Your task to perform on an android device: Open CNN.com Image 0: 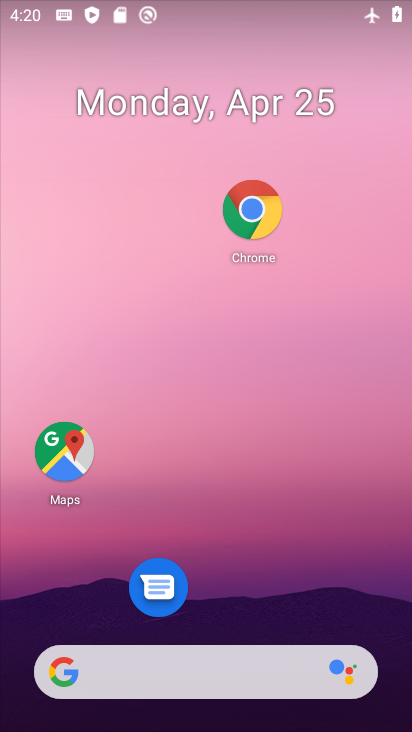
Step 0: click (270, 202)
Your task to perform on an android device: Open CNN.com Image 1: 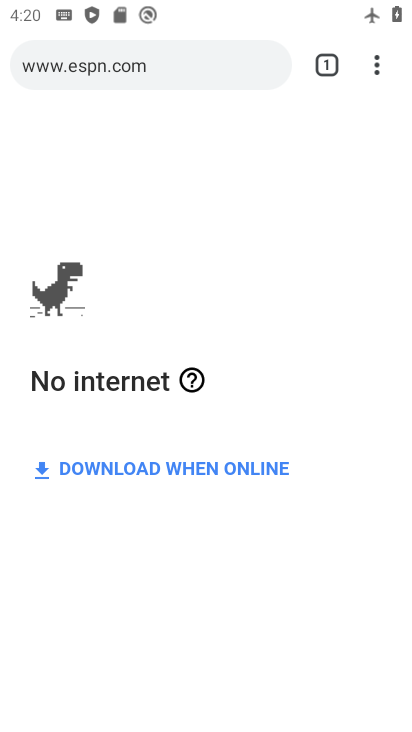
Step 1: task complete